Your task to perform on an android device: Go to battery settings Image 0: 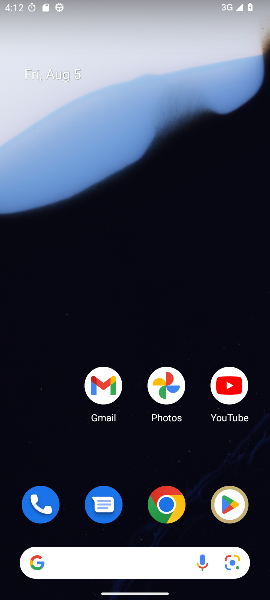
Step 0: drag from (60, 484) to (215, 104)
Your task to perform on an android device: Go to battery settings Image 1: 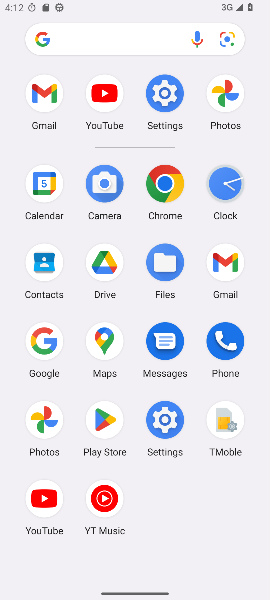
Step 1: click (168, 414)
Your task to perform on an android device: Go to battery settings Image 2: 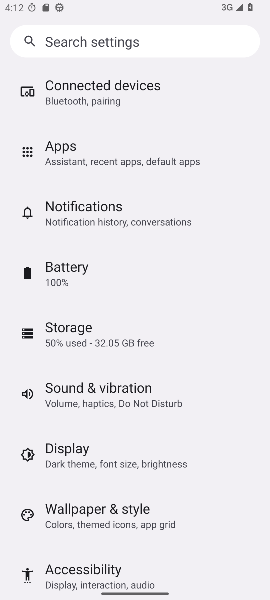
Step 2: click (67, 265)
Your task to perform on an android device: Go to battery settings Image 3: 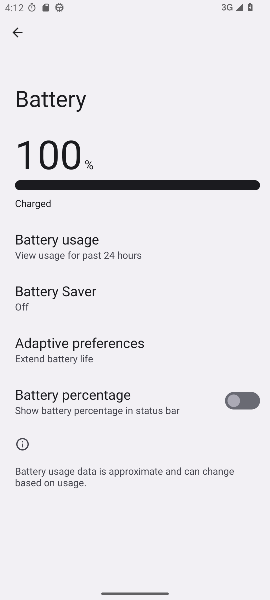
Step 3: task complete